Your task to perform on an android device: check storage Image 0: 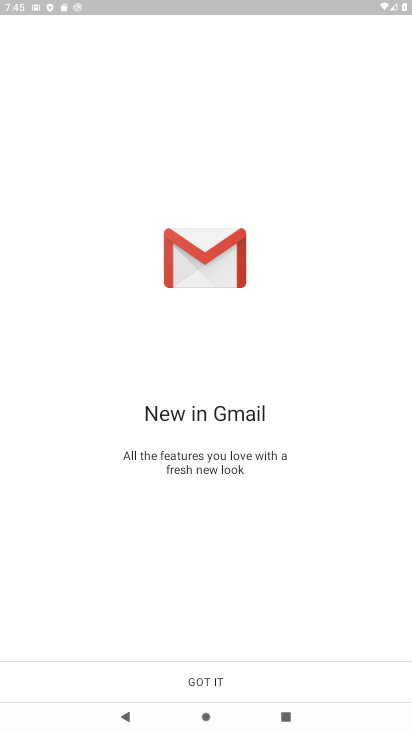
Step 0: press home button
Your task to perform on an android device: check storage Image 1: 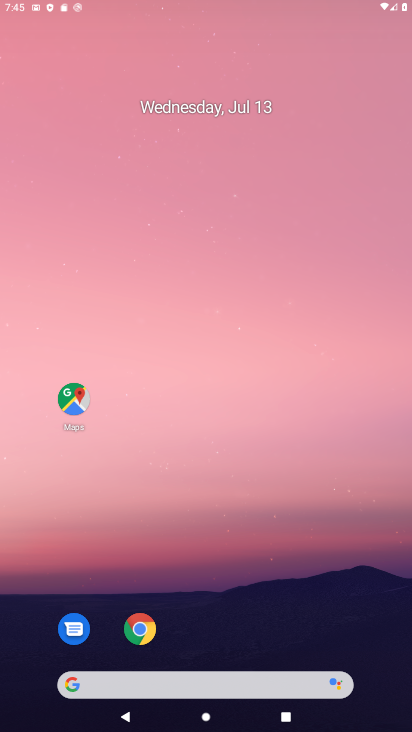
Step 1: drag from (235, 645) to (267, 122)
Your task to perform on an android device: check storage Image 2: 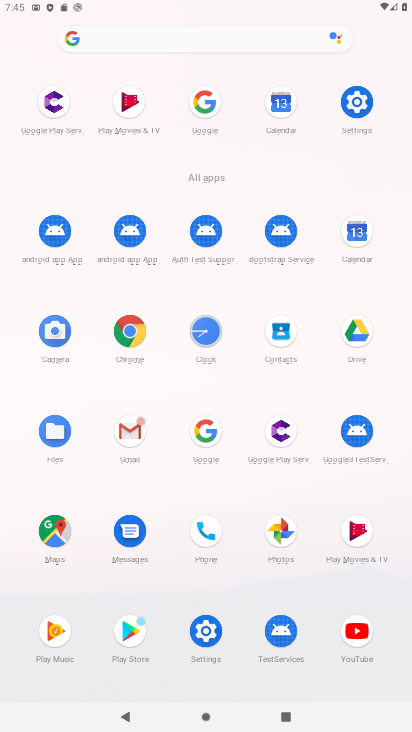
Step 2: click (356, 106)
Your task to perform on an android device: check storage Image 3: 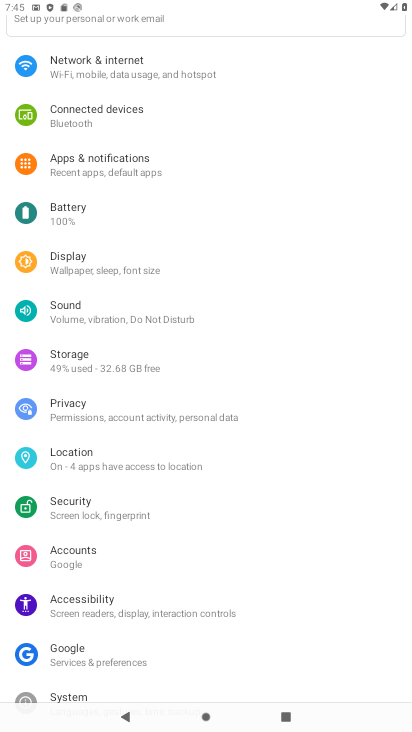
Step 3: click (81, 355)
Your task to perform on an android device: check storage Image 4: 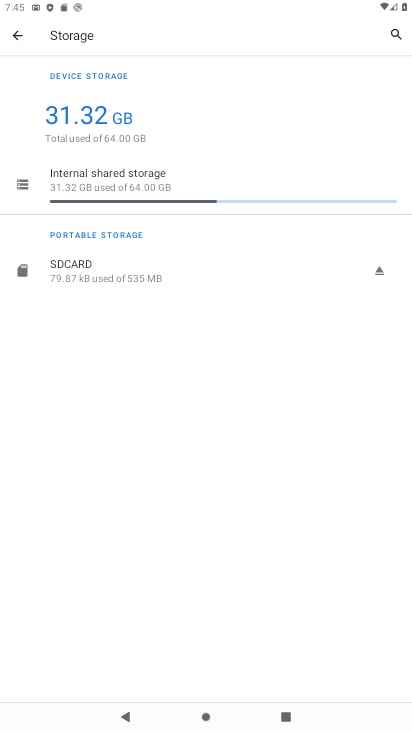
Step 4: task complete